Your task to perform on an android device: Open my contact list Image 0: 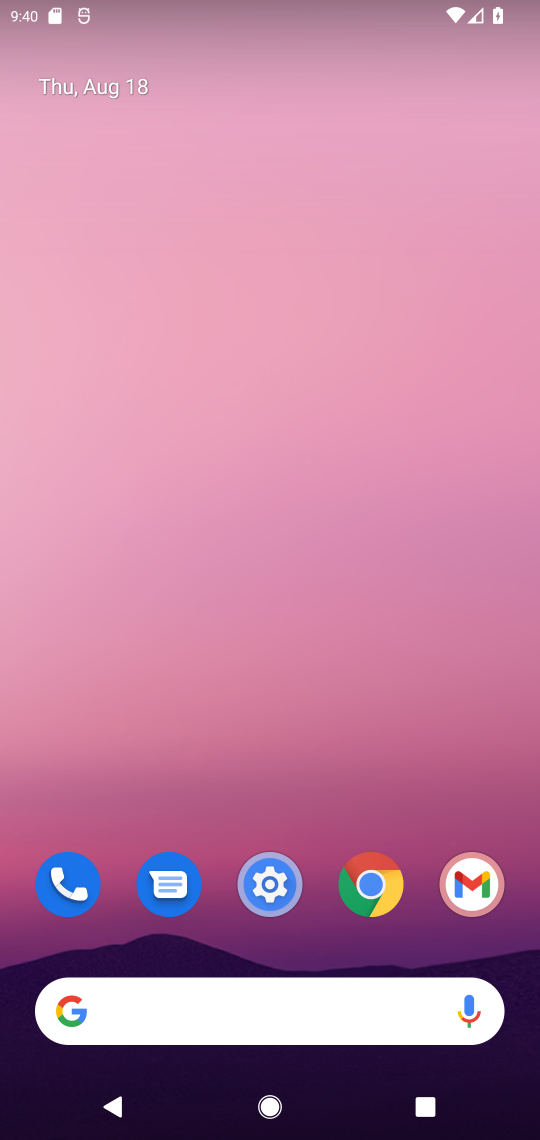
Step 0: drag from (214, 811) to (193, 168)
Your task to perform on an android device: Open my contact list Image 1: 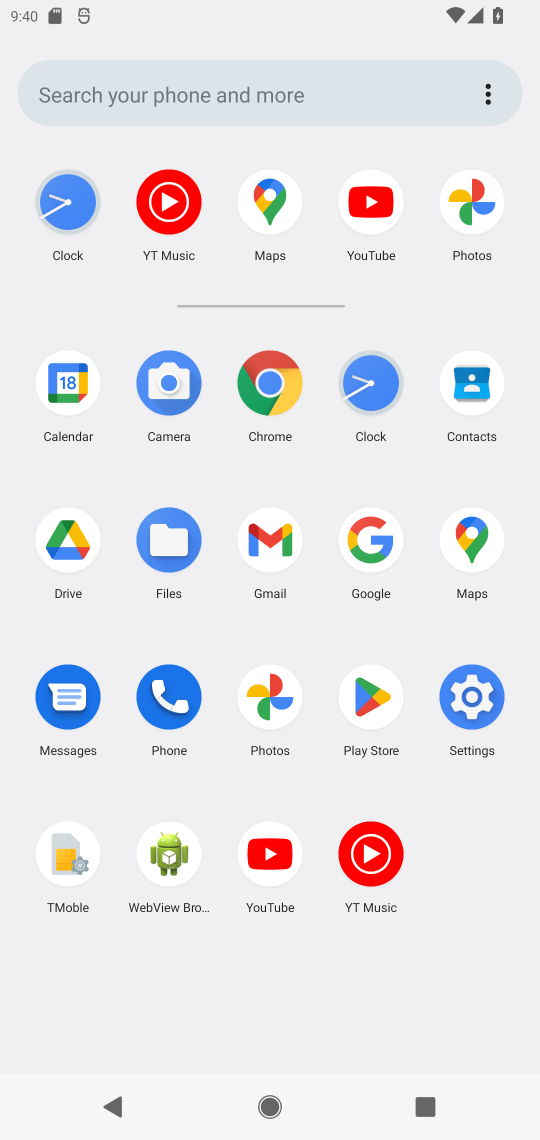
Step 1: click (472, 398)
Your task to perform on an android device: Open my contact list Image 2: 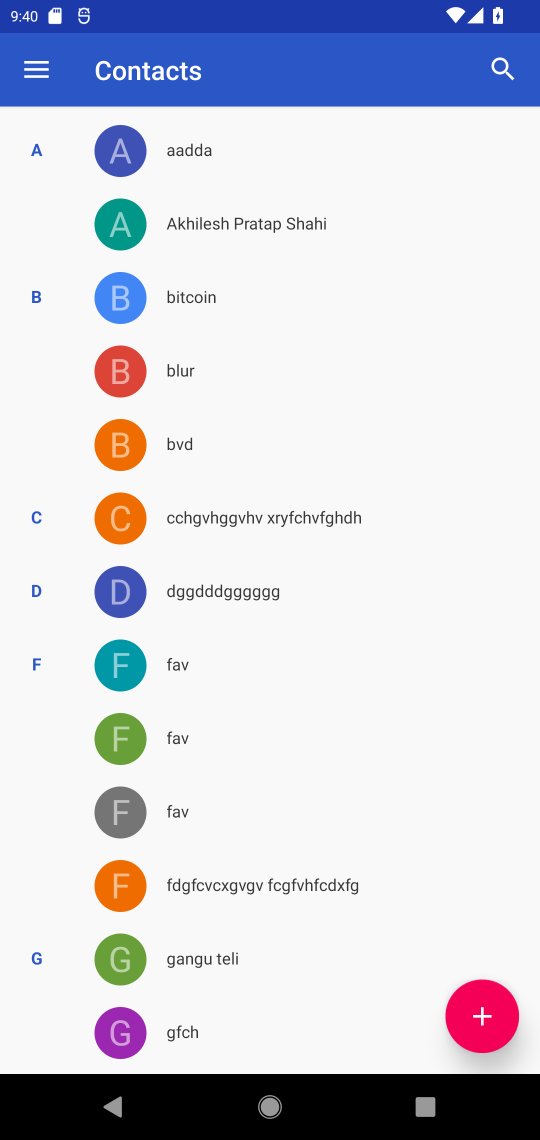
Step 2: task complete